Your task to perform on an android device: set the timer Image 0: 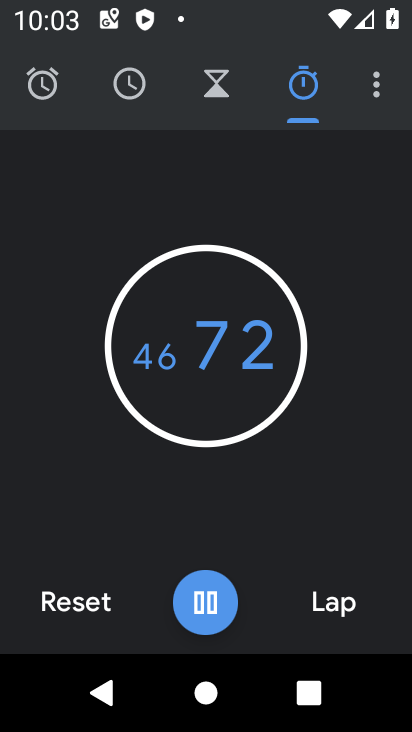
Step 0: task complete